Your task to perform on an android device: Show me the alarms in the clock app Image 0: 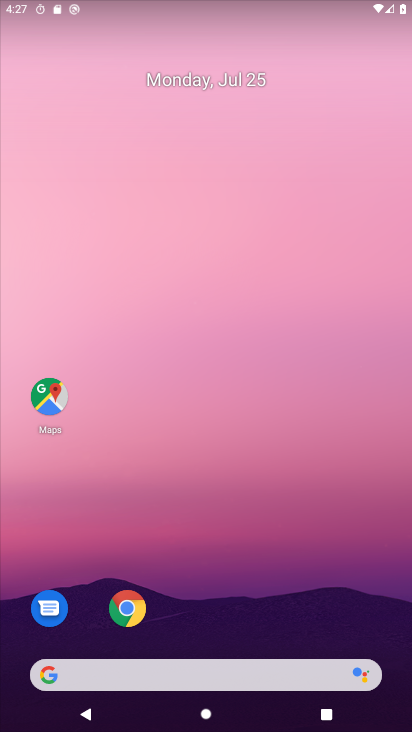
Step 0: drag from (261, 586) to (145, 8)
Your task to perform on an android device: Show me the alarms in the clock app Image 1: 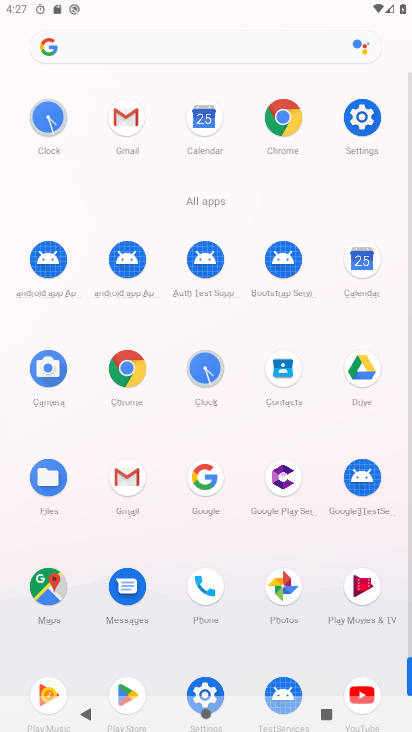
Step 1: click (208, 386)
Your task to perform on an android device: Show me the alarms in the clock app Image 2: 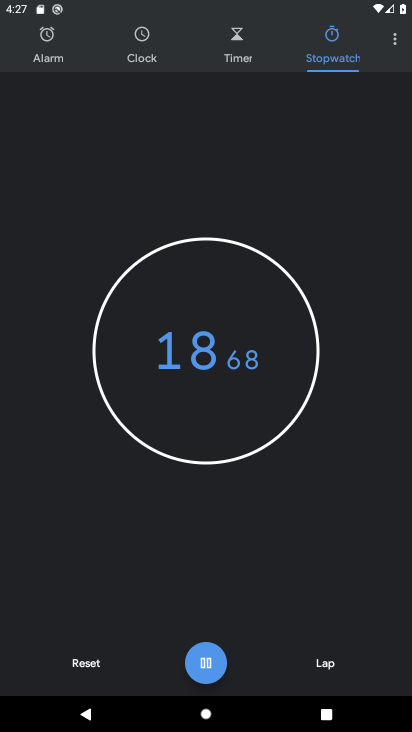
Step 2: click (74, 666)
Your task to perform on an android device: Show me the alarms in the clock app Image 3: 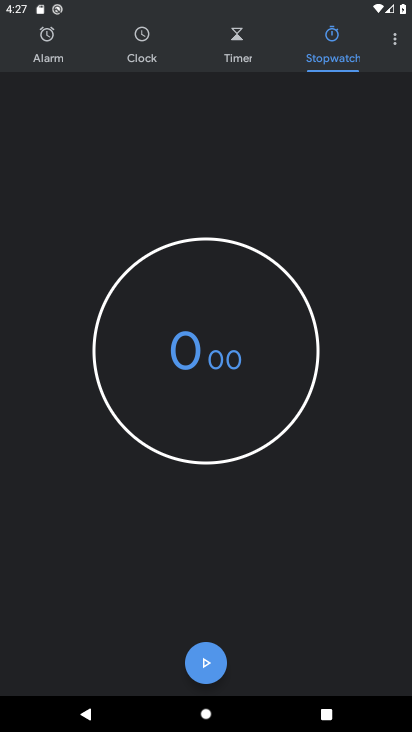
Step 3: click (47, 47)
Your task to perform on an android device: Show me the alarms in the clock app Image 4: 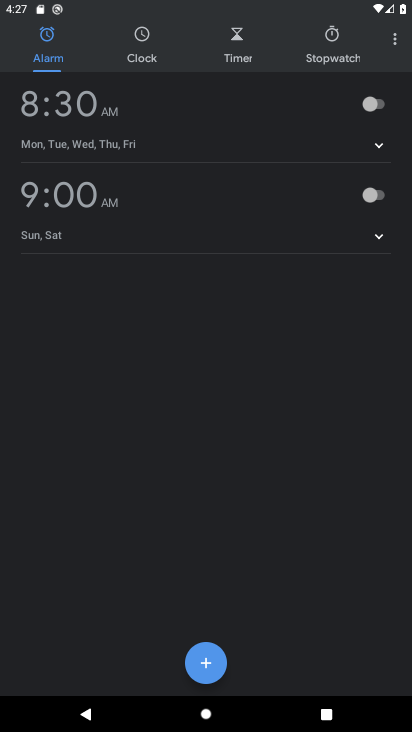
Step 4: task complete